Your task to perform on an android device: Show me the alarms in the clock app Image 0: 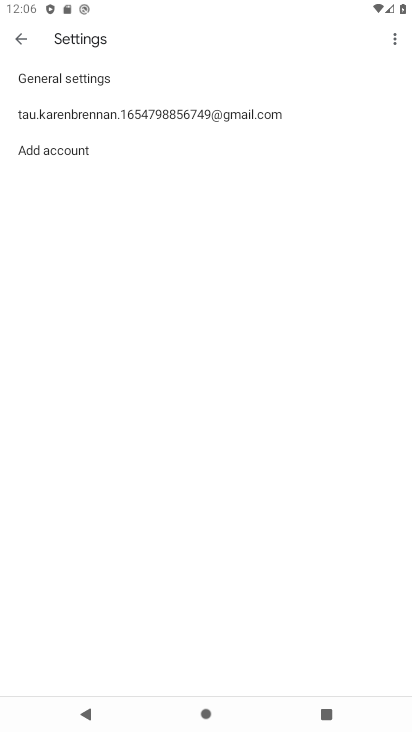
Step 0: task complete